Your task to perform on an android device: Do I have any events tomorrow? Image 0: 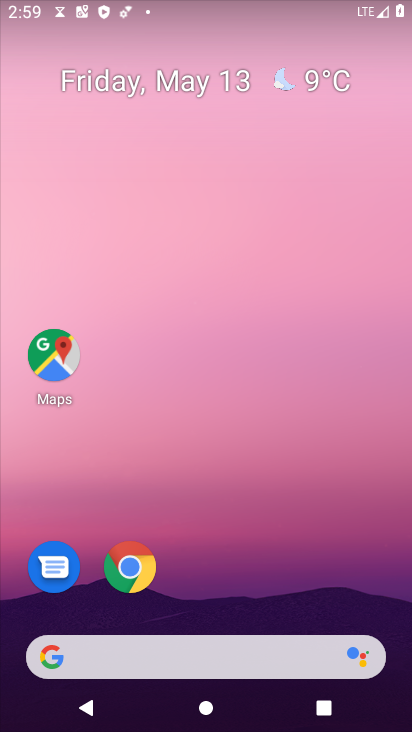
Step 0: drag from (328, 584) to (320, 71)
Your task to perform on an android device: Do I have any events tomorrow? Image 1: 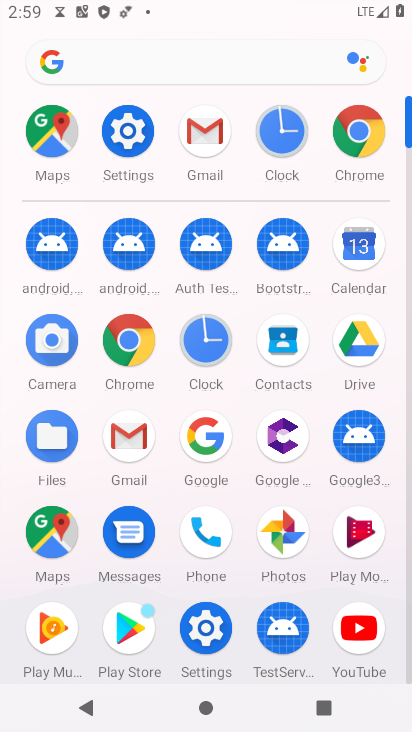
Step 1: click (361, 254)
Your task to perform on an android device: Do I have any events tomorrow? Image 2: 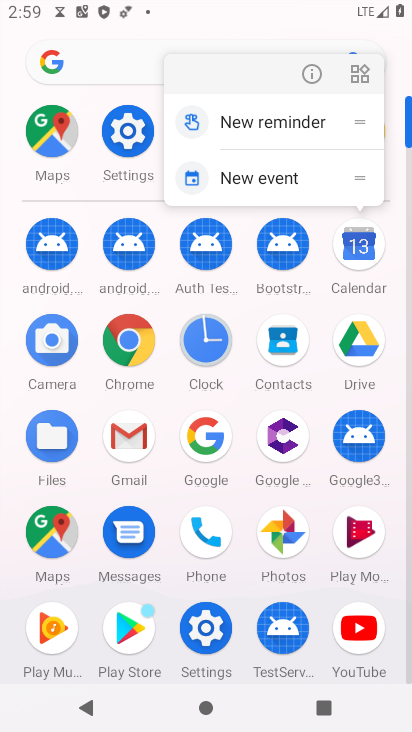
Step 2: click (361, 254)
Your task to perform on an android device: Do I have any events tomorrow? Image 3: 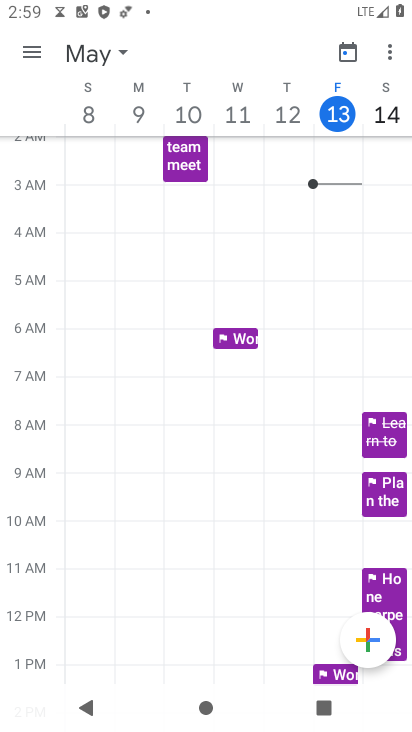
Step 3: click (28, 49)
Your task to perform on an android device: Do I have any events tomorrow? Image 4: 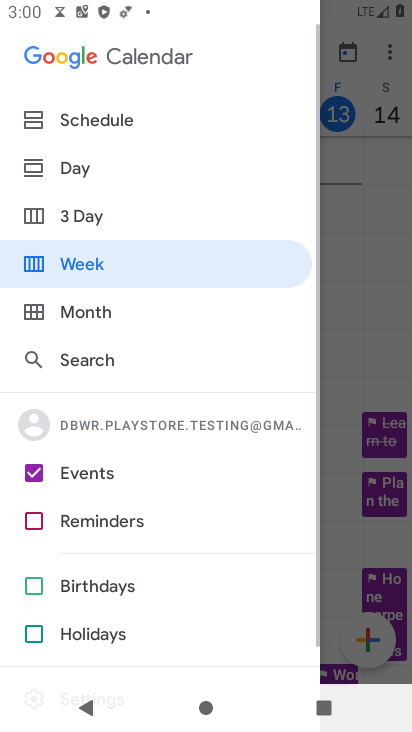
Step 4: click (73, 121)
Your task to perform on an android device: Do I have any events tomorrow? Image 5: 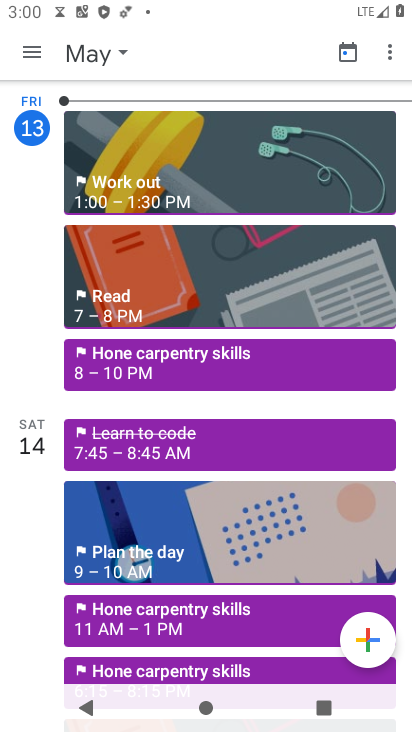
Step 5: drag from (156, 525) to (162, 450)
Your task to perform on an android device: Do I have any events tomorrow? Image 6: 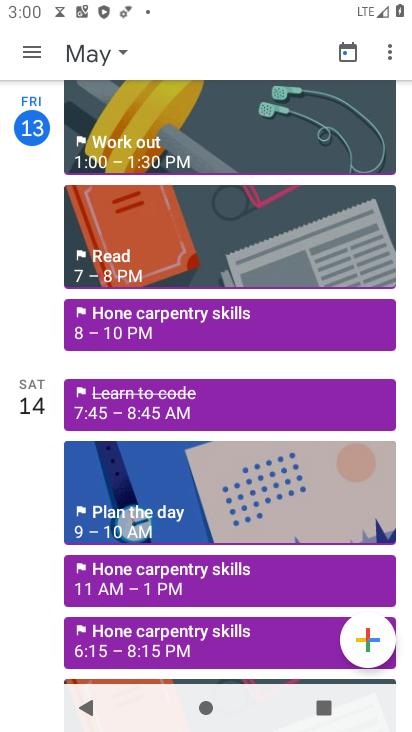
Step 6: drag from (159, 468) to (163, 382)
Your task to perform on an android device: Do I have any events tomorrow? Image 7: 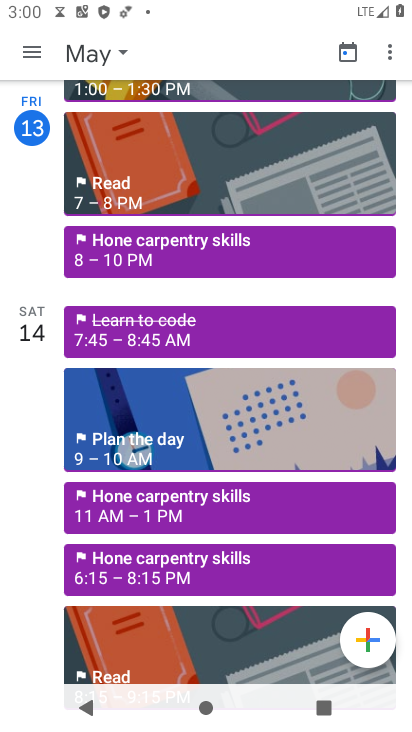
Step 7: click (169, 344)
Your task to perform on an android device: Do I have any events tomorrow? Image 8: 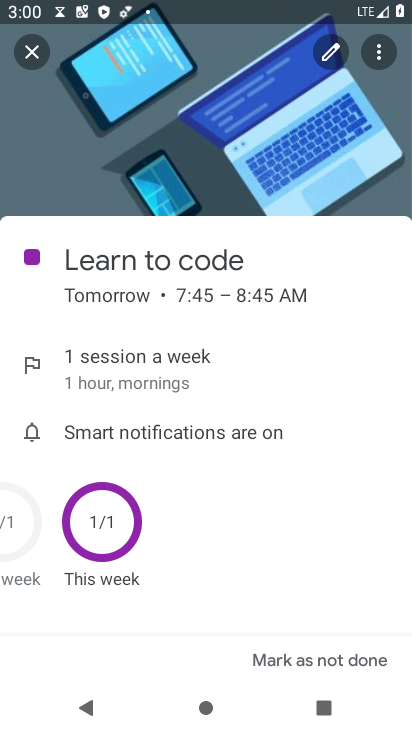
Step 8: task complete